Your task to perform on an android device: When is my next appointment? Image 0: 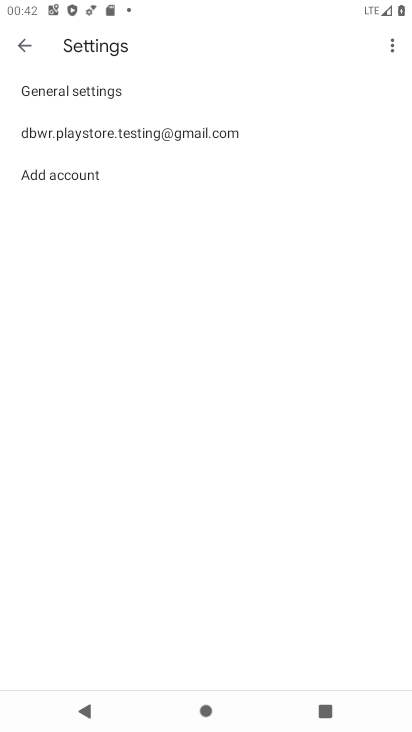
Step 0: press home button
Your task to perform on an android device: When is my next appointment? Image 1: 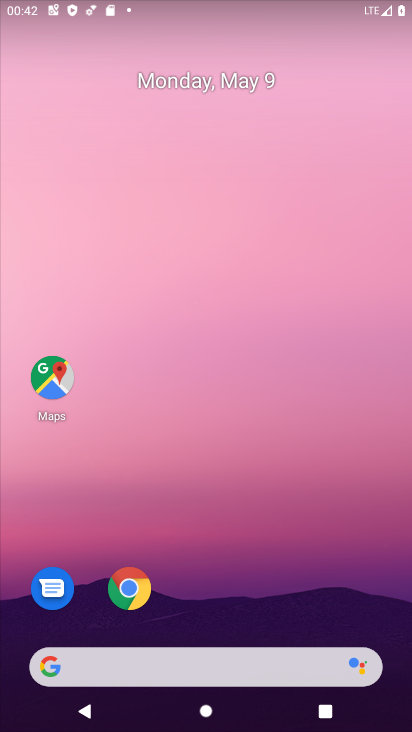
Step 1: drag from (241, 549) to (167, 66)
Your task to perform on an android device: When is my next appointment? Image 2: 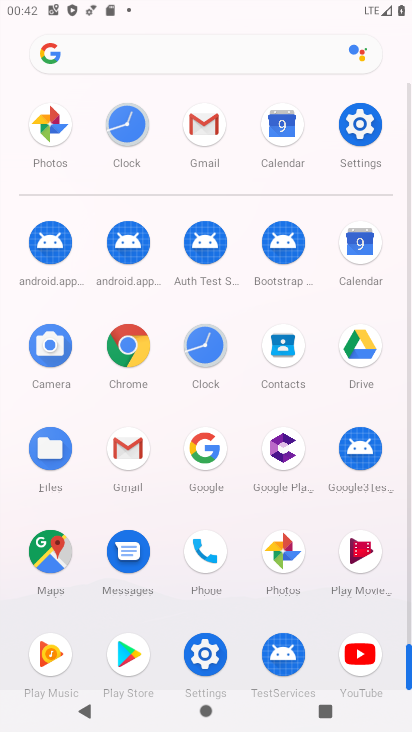
Step 2: click (358, 242)
Your task to perform on an android device: When is my next appointment? Image 3: 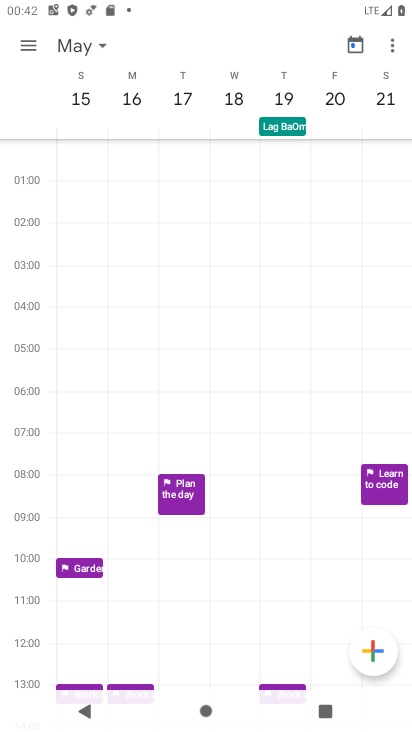
Step 3: click (356, 244)
Your task to perform on an android device: When is my next appointment? Image 4: 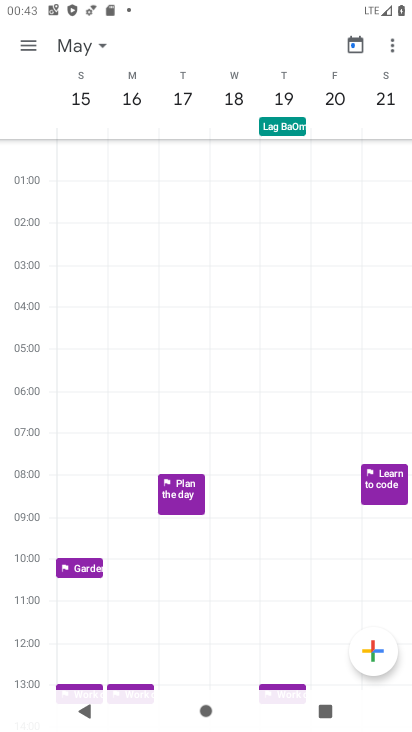
Step 4: click (92, 45)
Your task to perform on an android device: When is my next appointment? Image 5: 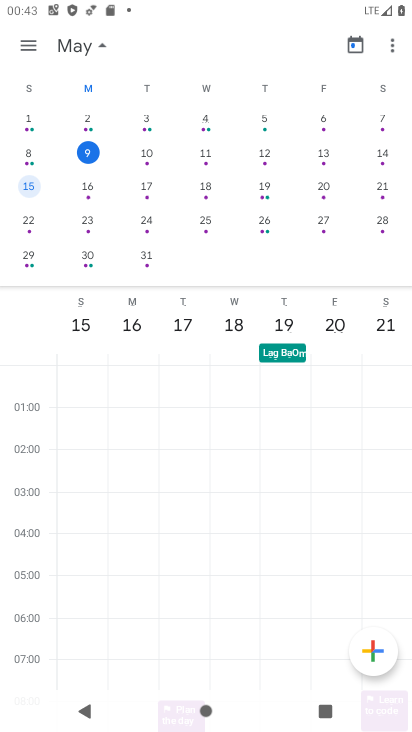
Step 5: click (26, 154)
Your task to perform on an android device: When is my next appointment? Image 6: 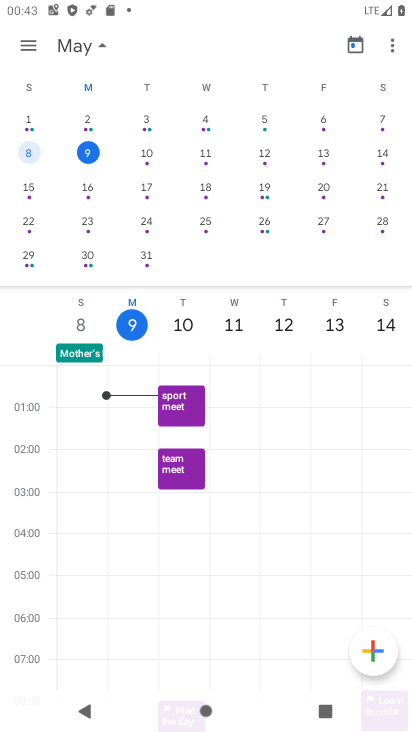
Step 6: click (26, 154)
Your task to perform on an android device: When is my next appointment? Image 7: 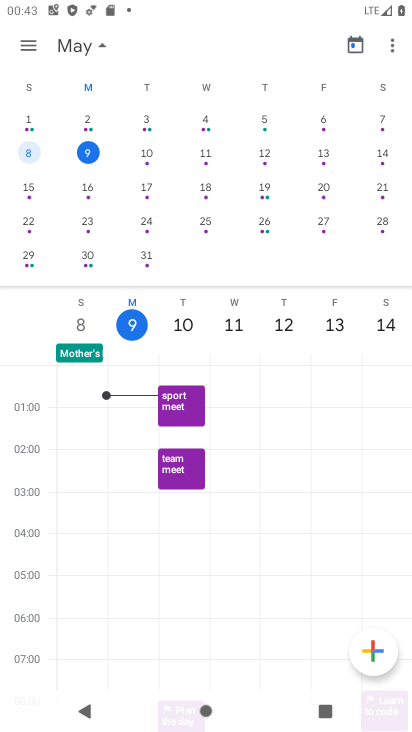
Step 7: click (26, 154)
Your task to perform on an android device: When is my next appointment? Image 8: 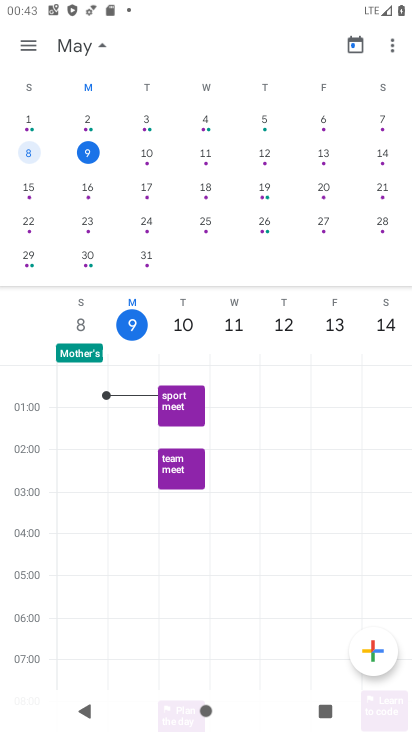
Step 8: click (26, 154)
Your task to perform on an android device: When is my next appointment? Image 9: 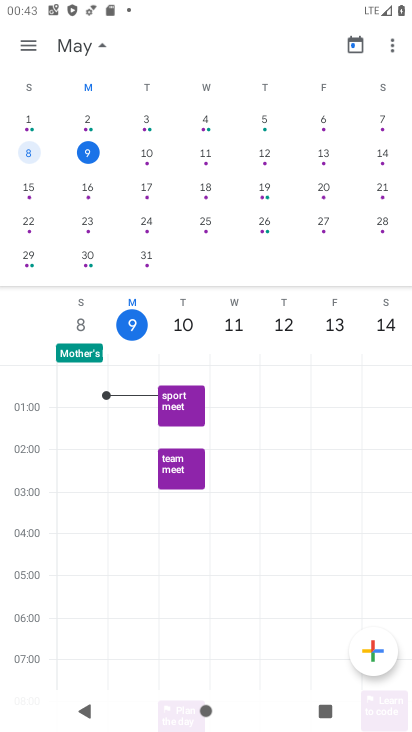
Step 9: click (26, 154)
Your task to perform on an android device: When is my next appointment? Image 10: 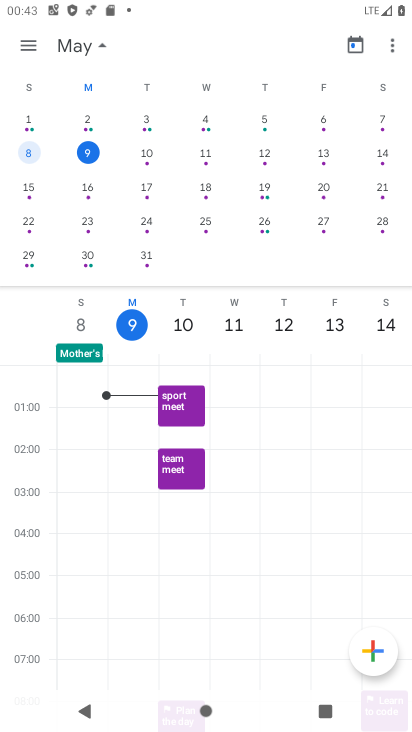
Step 10: click (26, 154)
Your task to perform on an android device: When is my next appointment? Image 11: 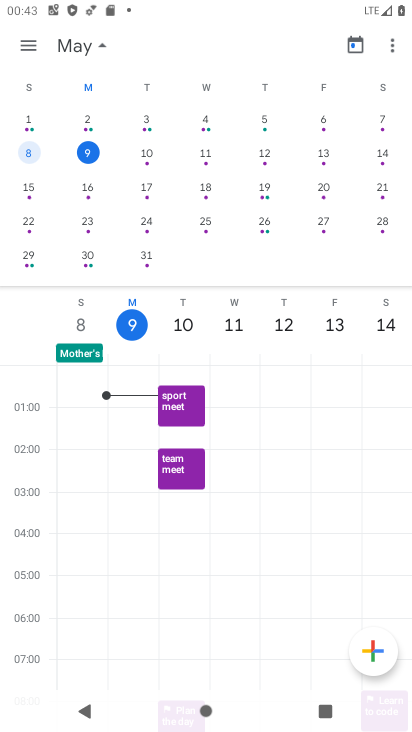
Step 11: click (37, 150)
Your task to perform on an android device: When is my next appointment? Image 12: 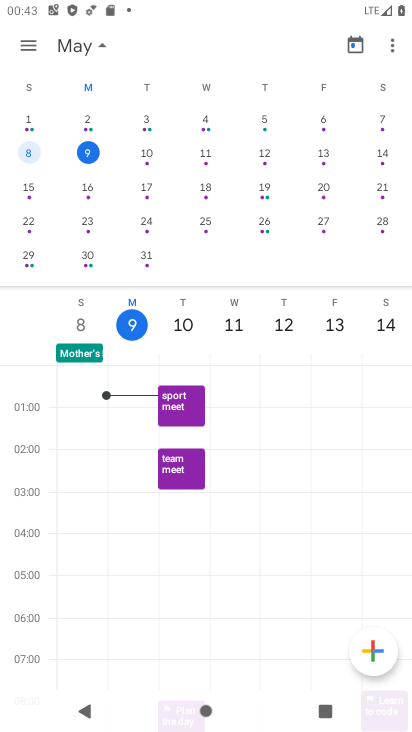
Step 12: click (75, 312)
Your task to perform on an android device: When is my next appointment? Image 13: 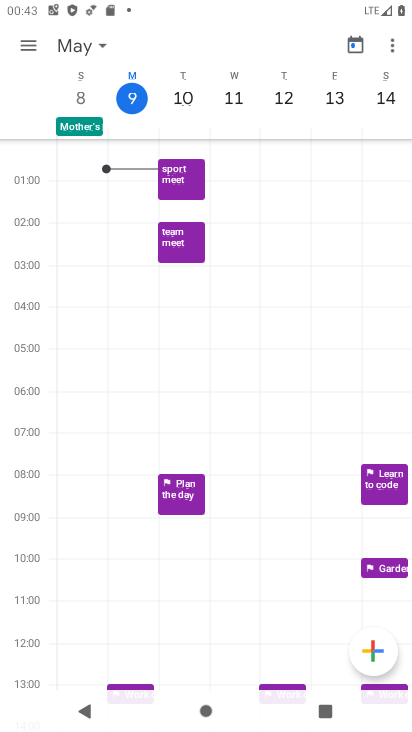
Step 13: click (267, 538)
Your task to perform on an android device: When is my next appointment? Image 14: 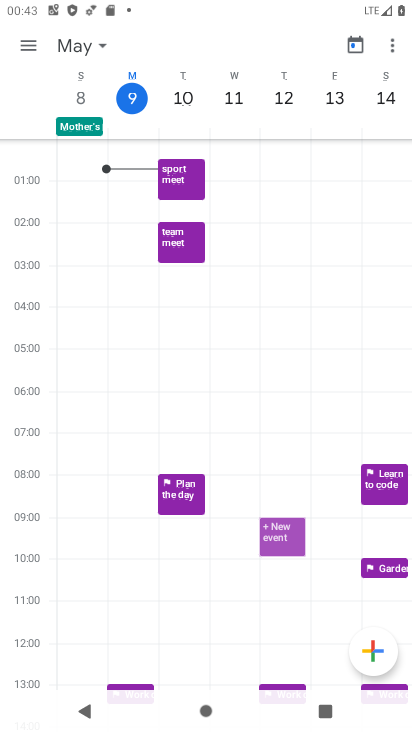
Step 14: drag from (267, 538) to (265, 214)
Your task to perform on an android device: When is my next appointment? Image 15: 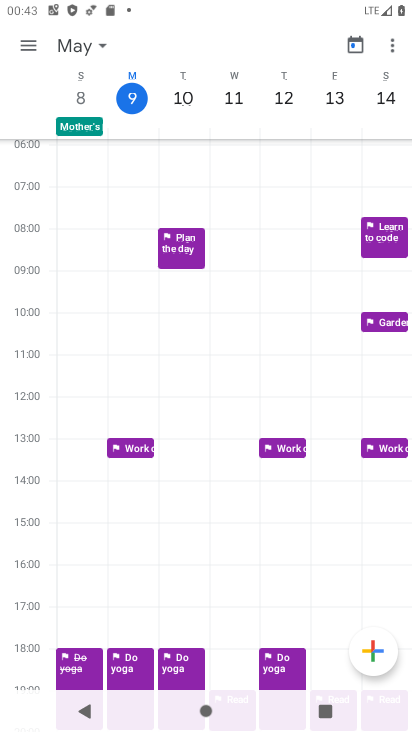
Step 15: click (275, 323)
Your task to perform on an android device: When is my next appointment? Image 16: 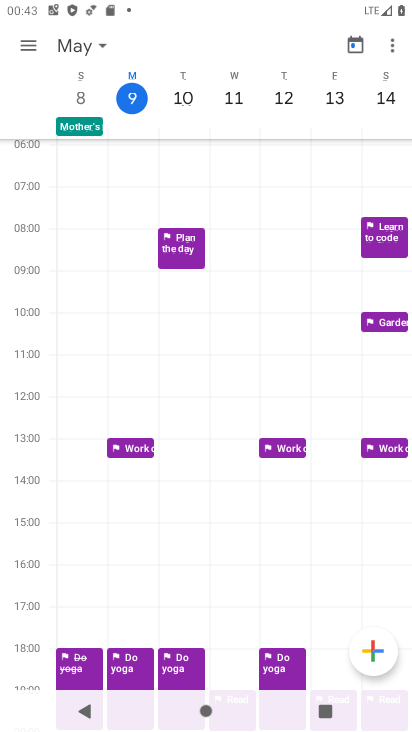
Step 16: task complete